Your task to perform on an android device: turn on the 24-hour format for clock Image 0: 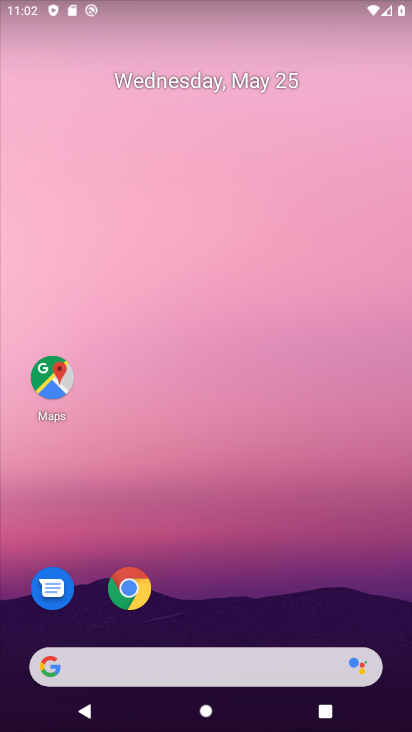
Step 0: drag from (181, 618) to (278, 193)
Your task to perform on an android device: turn on the 24-hour format for clock Image 1: 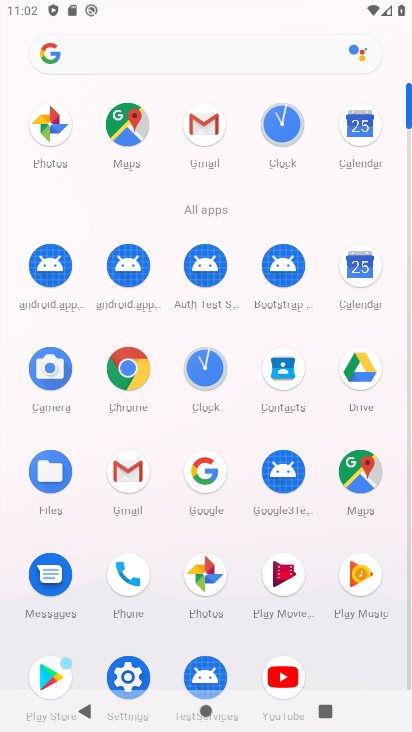
Step 1: click (201, 378)
Your task to perform on an android device: turn on the 24-hour format for clock Image 2: 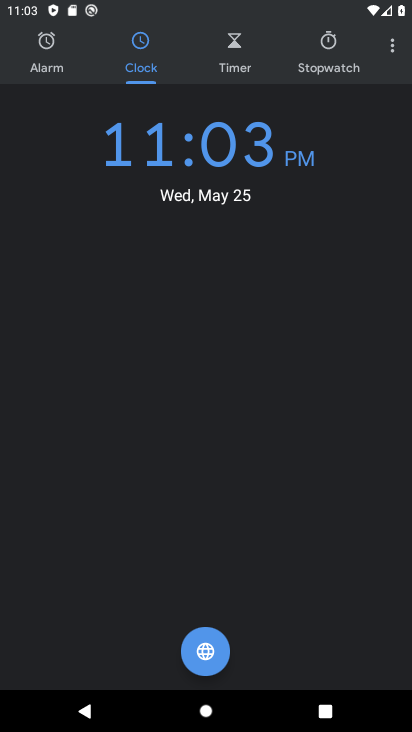
Step 2: click (396, 49)
Your task to perform on an android device: turn on the 24-hour format for clock Image 3: 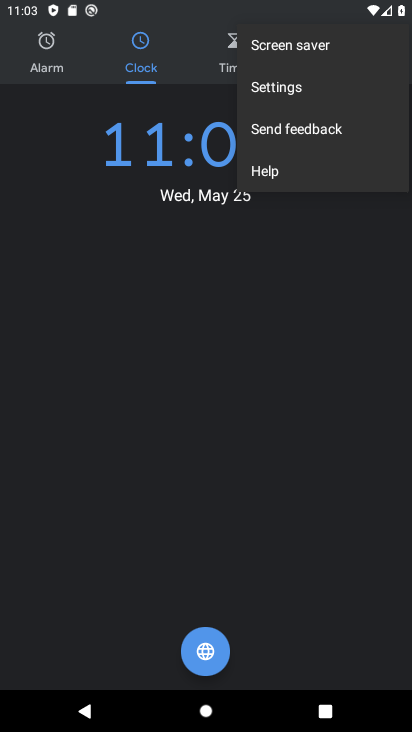
Step 3: click (314, 100)
Your task to perform on an android device: turn on the 24-hour format for clock Image 4: 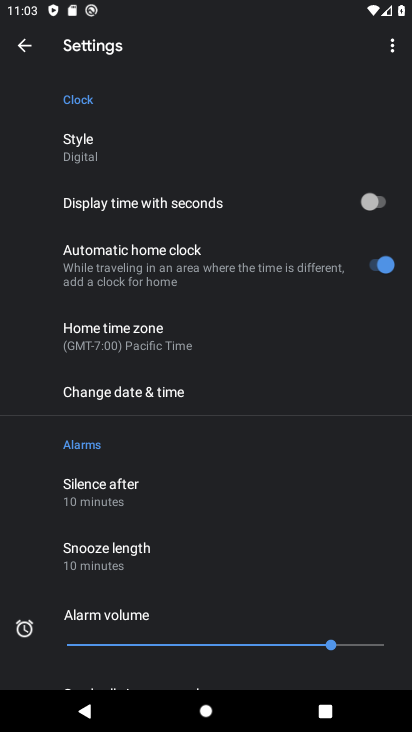
Step 4: click (159, 391)
Your task to perform on an android device: turn on the 24-hour format for clock Image 5: 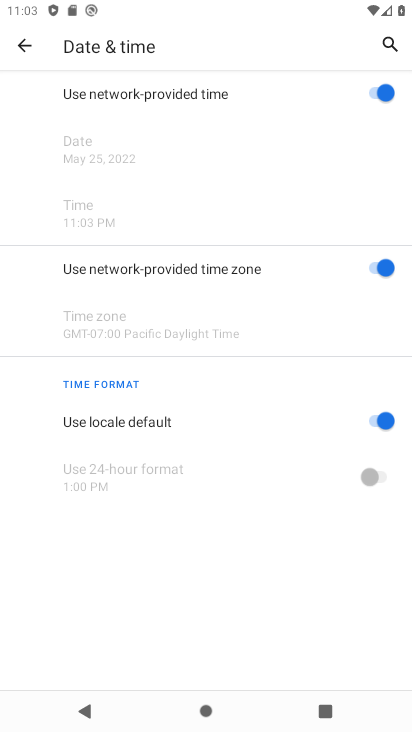
Step 5: click (368, 480)
Your task to perform on an android device: turn on the 24-hour format for clock Image 6: 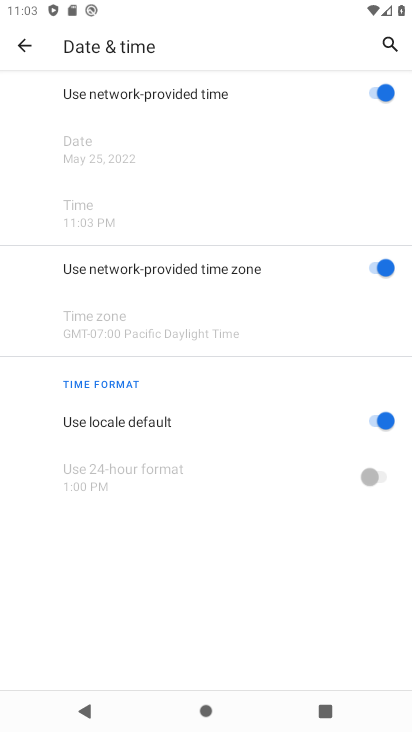
Step 6: click (374, 421)
Your task to perform on an android device: turn on the 24-hour format for clock Image 7: 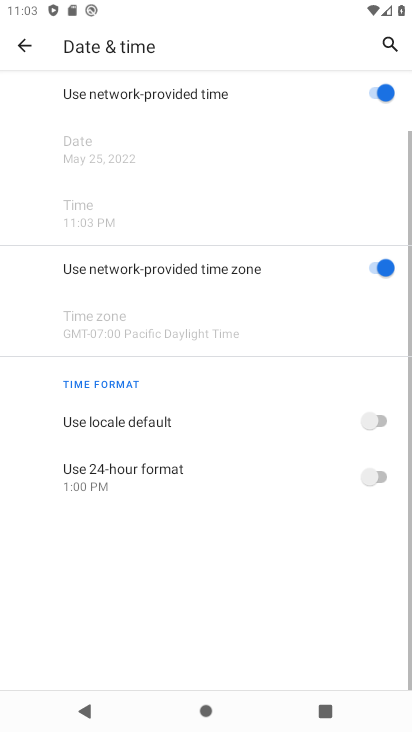
Step 7: click (368, 484)
Your task to perform on an android device: turn on the 24-hour format for clock Image 8: 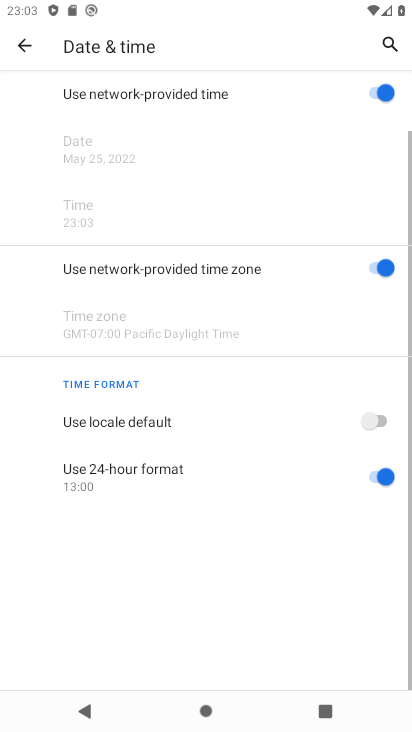
Step 8: task complete